Your task to perform on an android device: Play the last video I watched on Youtube Image 0: 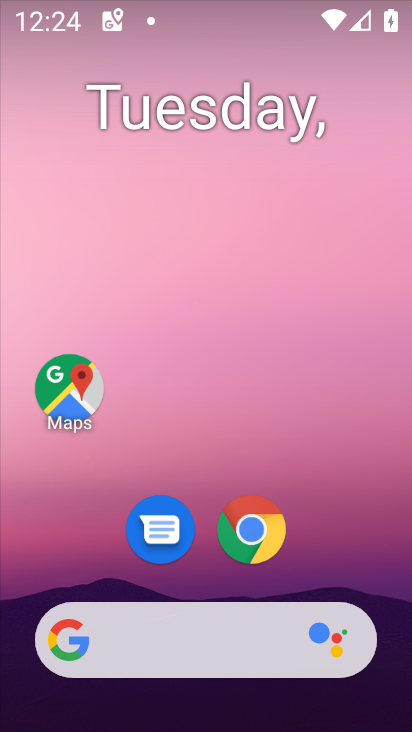
Step 0: drag from (179, 548) to (270, 36)
Your task to perform on an android device: Play the last video I watched on Youtube Image 1: 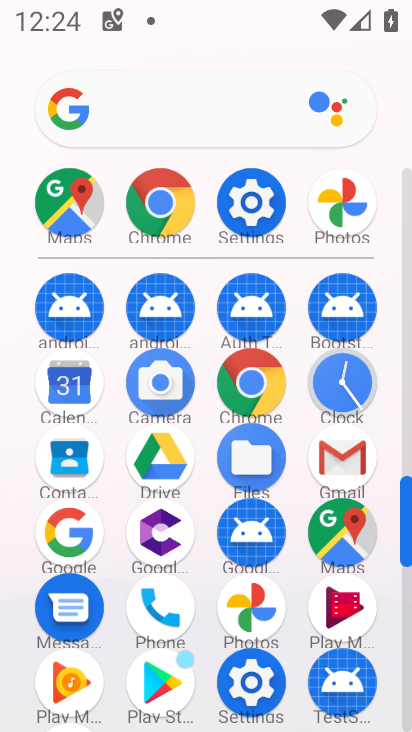
Step 1: drag from (206, 568) to (211, 355)
Your task to perform on an android device: Play the last video I watched on Youtube Image 2: 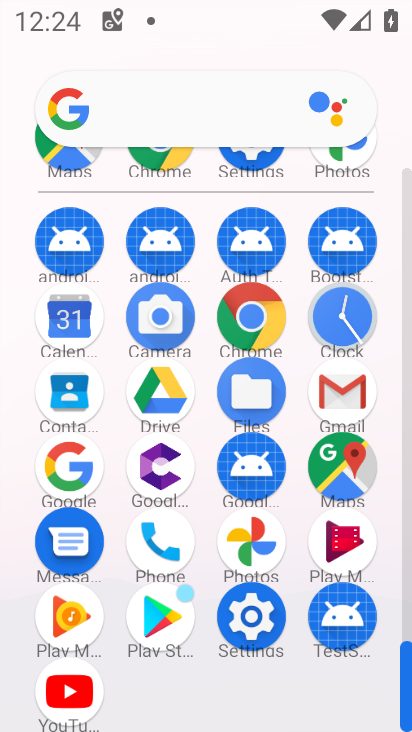
Step 2: click (69, 683)
Your task to perform on an android device: Play the last video I watched on Youtube Image 3: 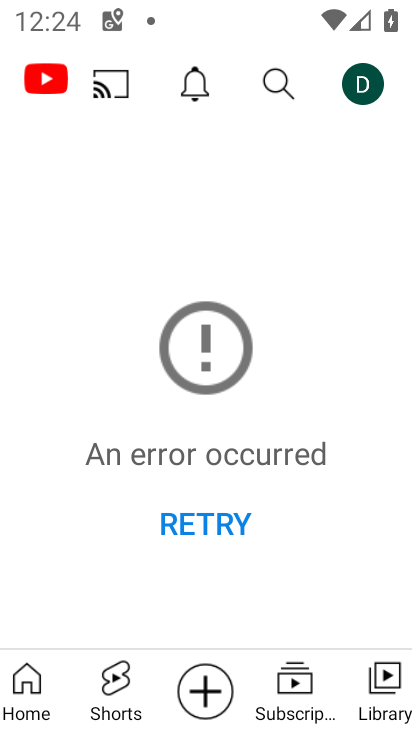
Step 3: task complete